Your task to perform on an android device: Open location settings Image 0: 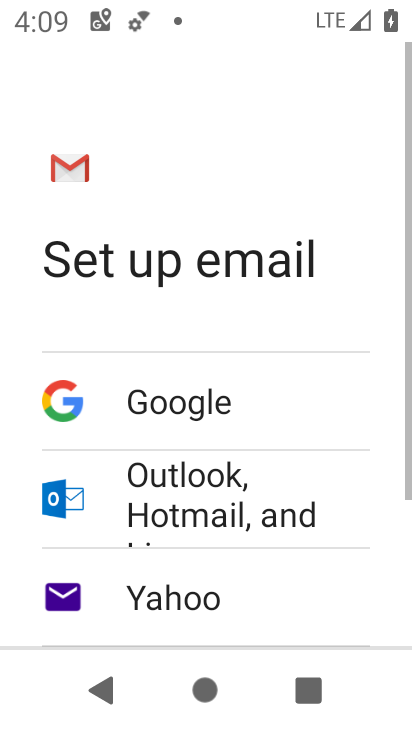
Step 0: press home button
Your task to perform on an android device: Open location settings Image 1: 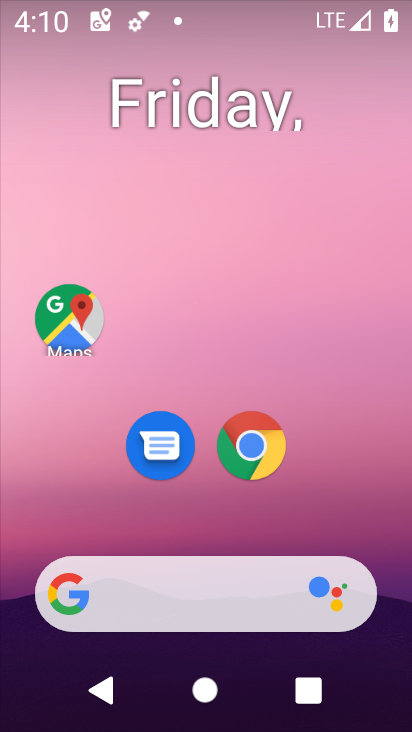
Step 1: drag from (396, 584) to (351, 101)
Your task to perform on an android device: Open location settings Image 2: 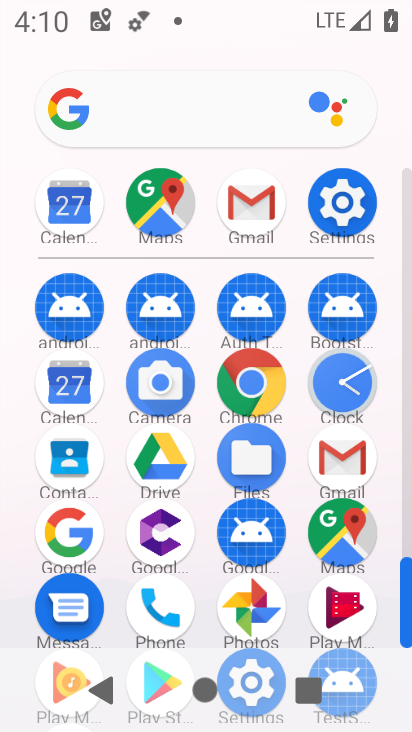
Step 2: click (355, 196)
Your task to perform on an android device: Open location settings Image 3: 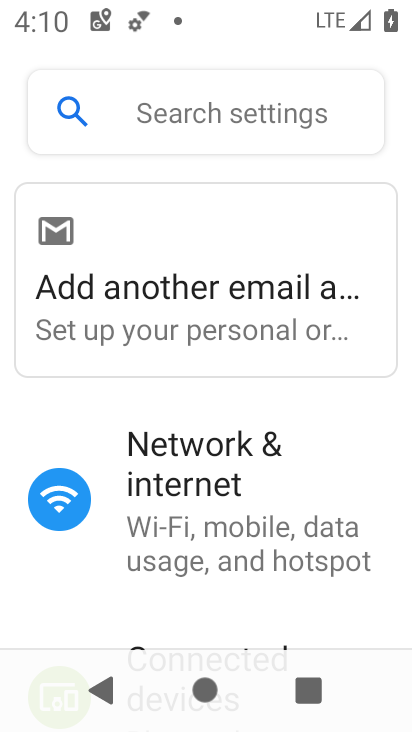
Step 3: drag from (264, 503) to (237, 213)
Your task to perform on an android device: Open location settings Image 4: 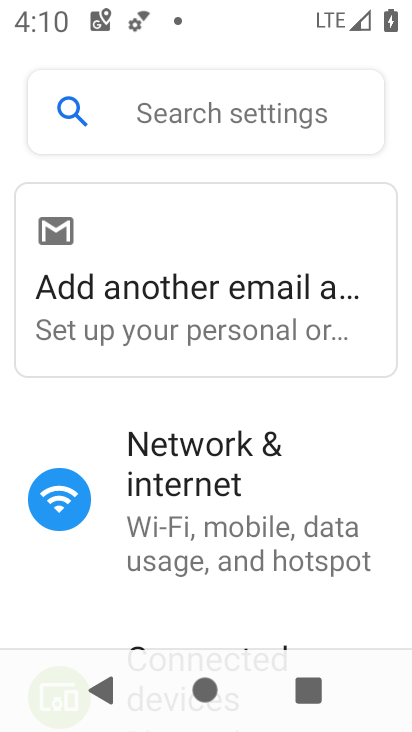
Step 4: drag from (238, 590) to (204, 257)
Your task to perform on an android device: Open location settings Image 5: 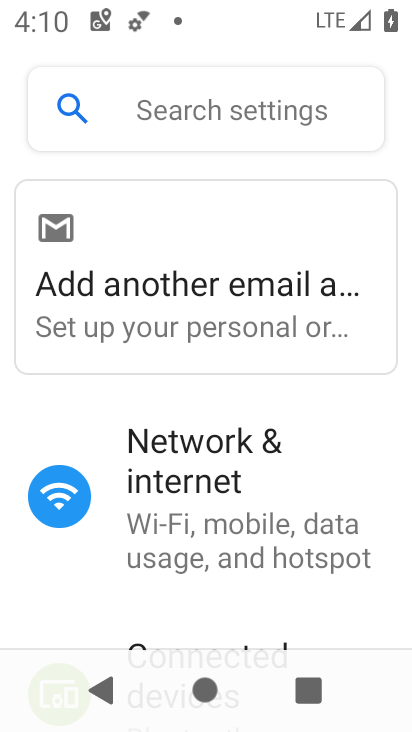
Step 5: drag from (220, 598) to (186, 104)
Your task to perform on an android device: Open location settings Image 6: 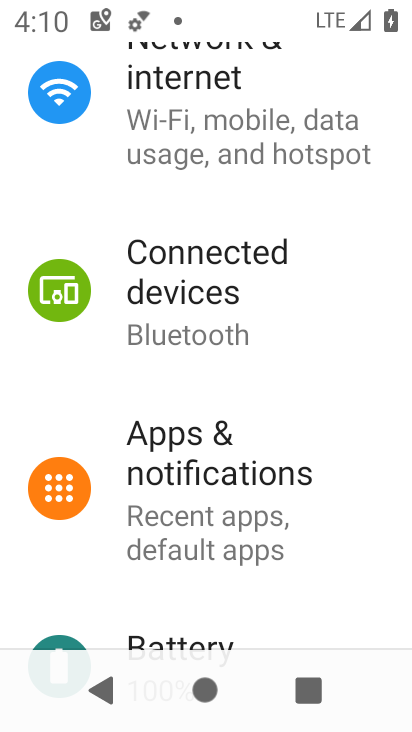
Step 6: drag from (209, 621) to (190, 226)
Your task to perform on an android device: Open location settings Image 7: 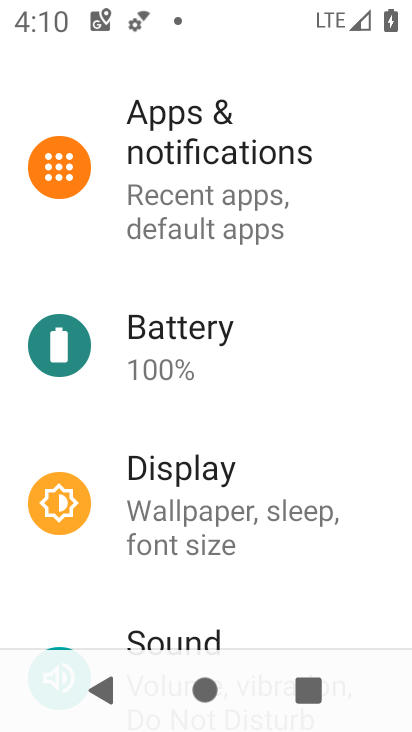
Step 7: drag from (199, 597) to (179, 125)
Your task to perform on an android device: Open location settings Image 8: 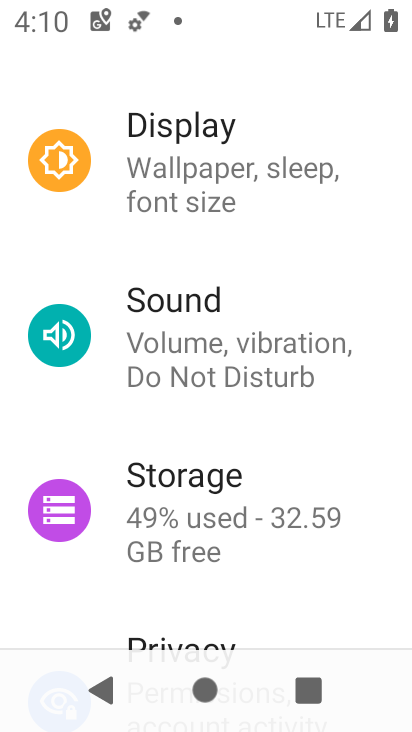
Step 8: drag from (202, 582) to (200, 122)
Your task to perform on an android device: Open location settings Image 9: 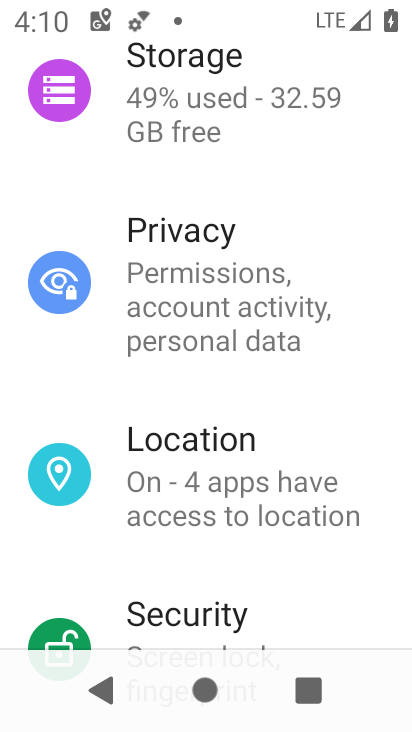
Step 9: click (190, 455)
Your task to perform on an android device: Open location settings Image 10: 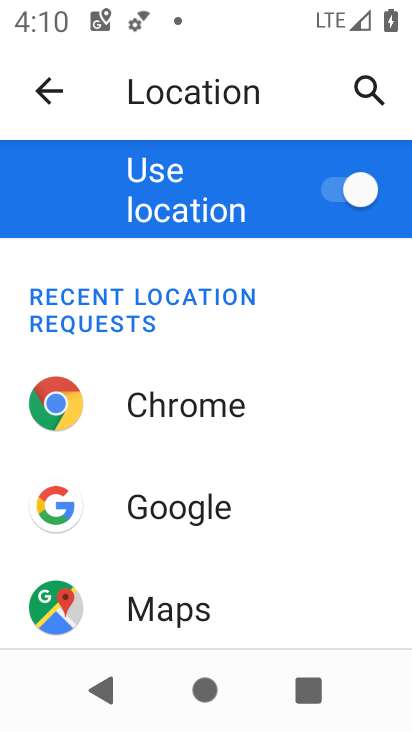
Step 10: task complete